Your task to perform on an android device: Add "lenovo thinkpad" to the cart on newegg, then select checkout. Image 0: 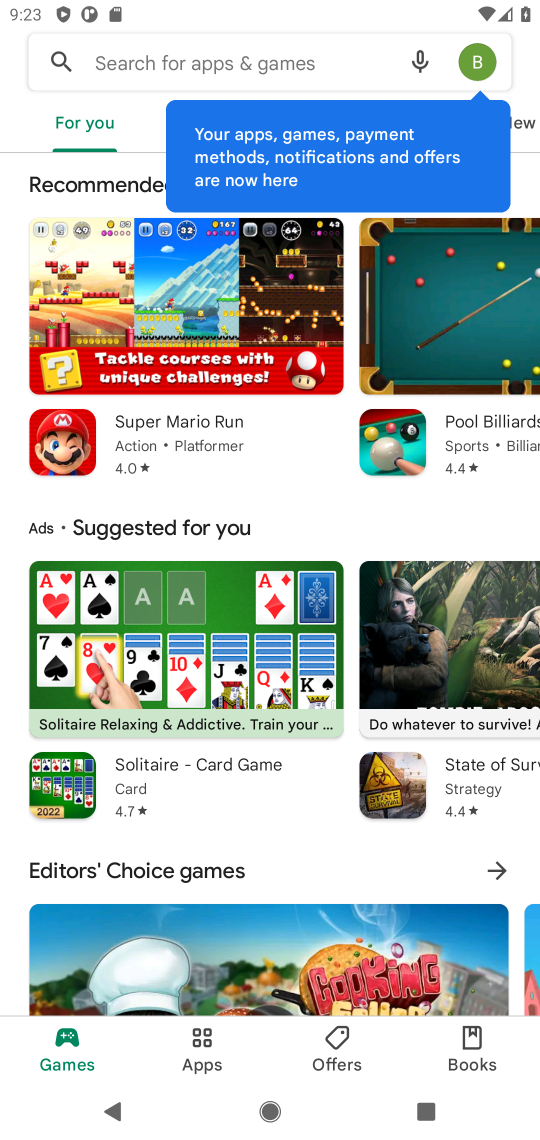
Step 0: press home button
Your task to perform on an android device: Add "lenovo thinkpad" to the cart on newegg, then select checkout. Image 1: 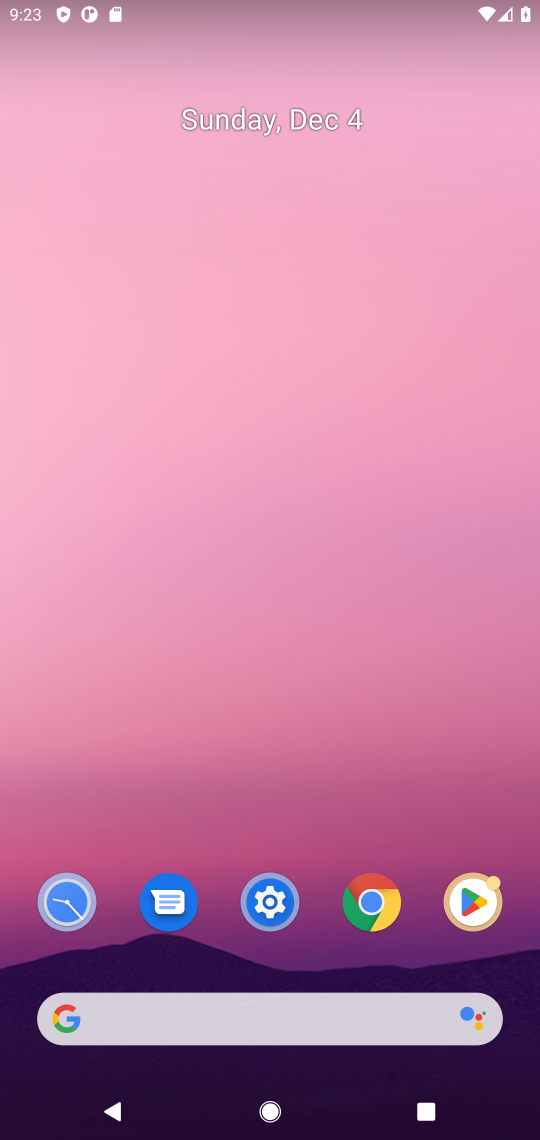
Step 1: click (386, 892)
Your task to perform on an android device: Add "lenovo thinkpad" to the cart on newegg, then select checkout. Image 2: 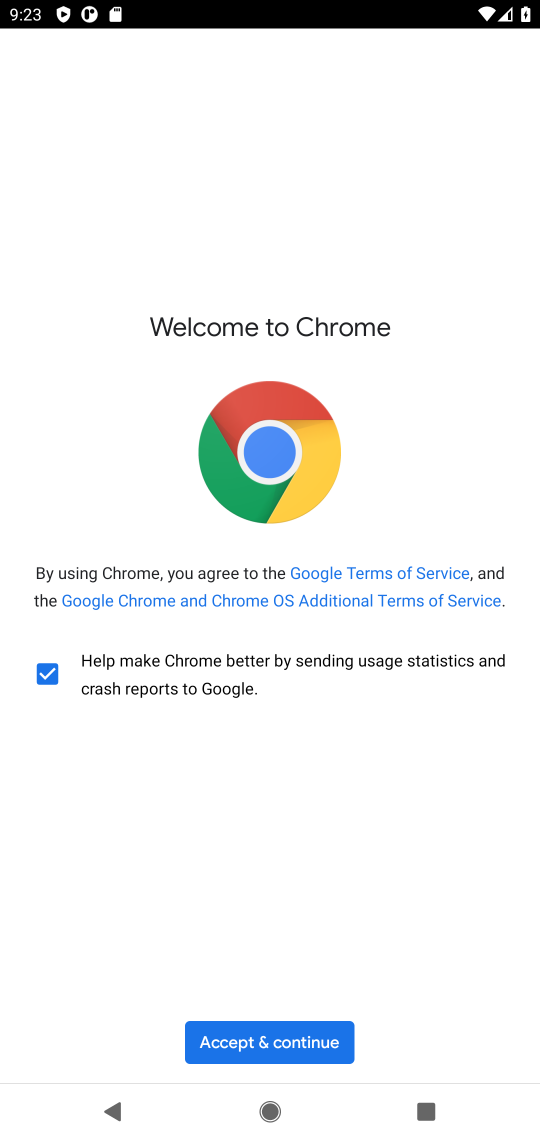
Step 2: click (328, 1029)
Your task to perform on an android device: Add "lenovo thinkpad" to the cart on newegg, then select checkout. Image 3: 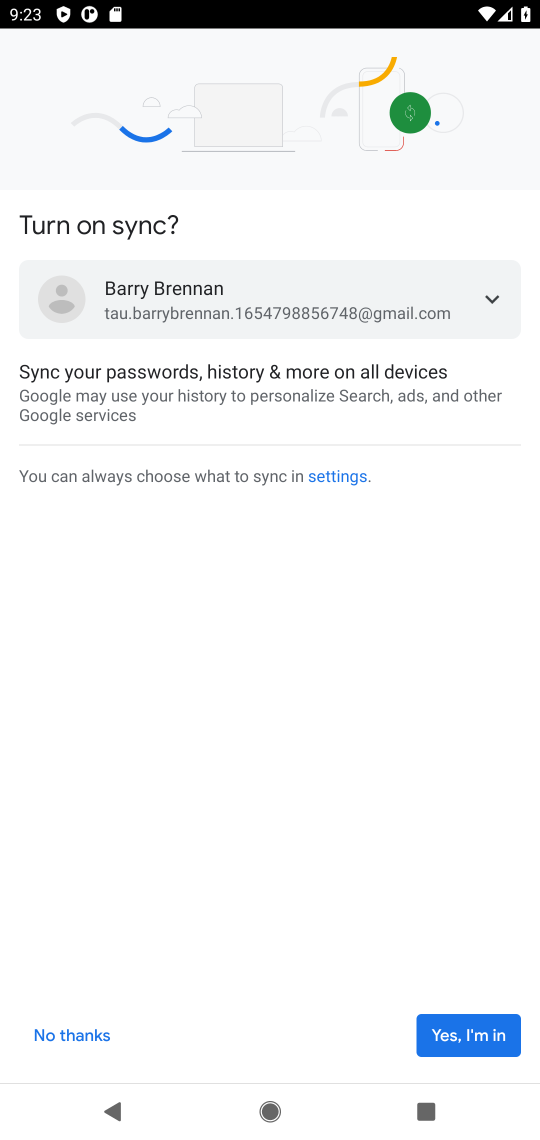
Step 3: click (328, 1029)
Your task to perform on an android device: Add "lenovo thinkpad" to the cart on newegg, then select checkout. Image 4: 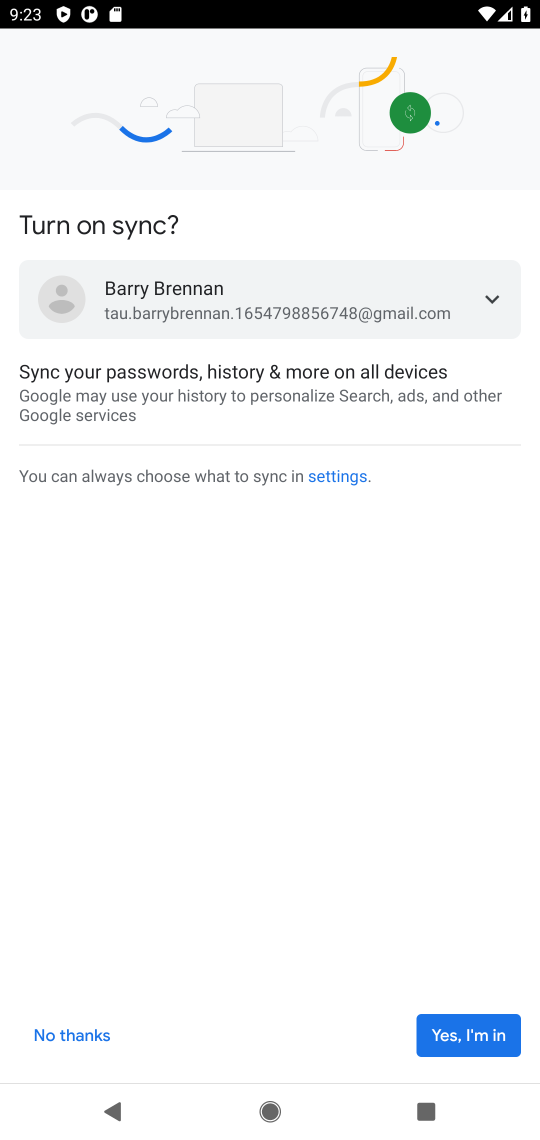
Step 4: click (486, 1035)
Your task to perform on an android device: Add "lenovo thinkpad" to the cart on newegg, then select checkout. Image 5: 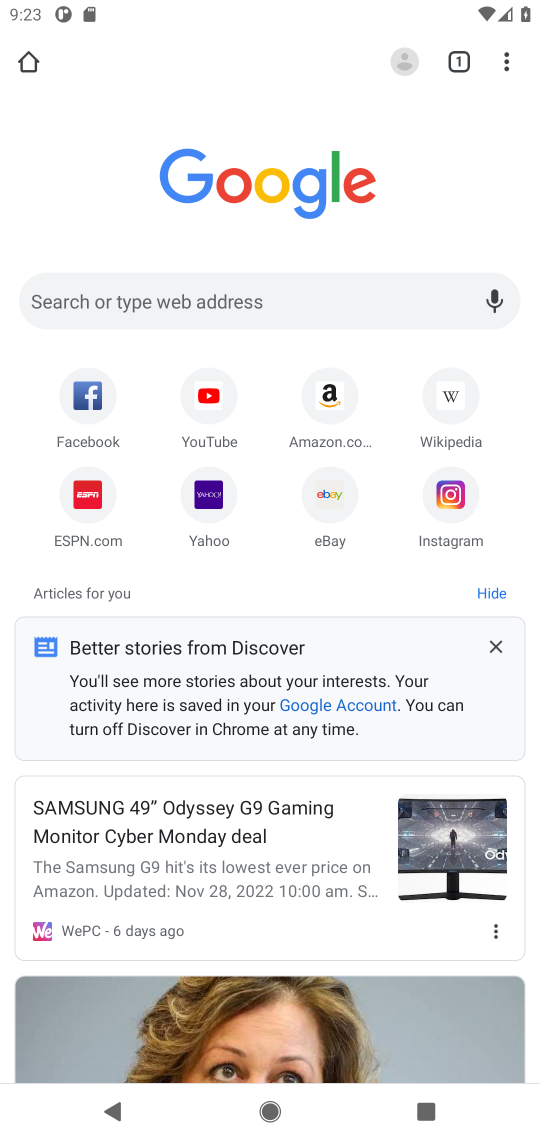
Step 5: click (187, 288)
Your task to perform on an android device: Add "lenovo thinkpad" to the cart on newegg, then select checkout. Image 6: 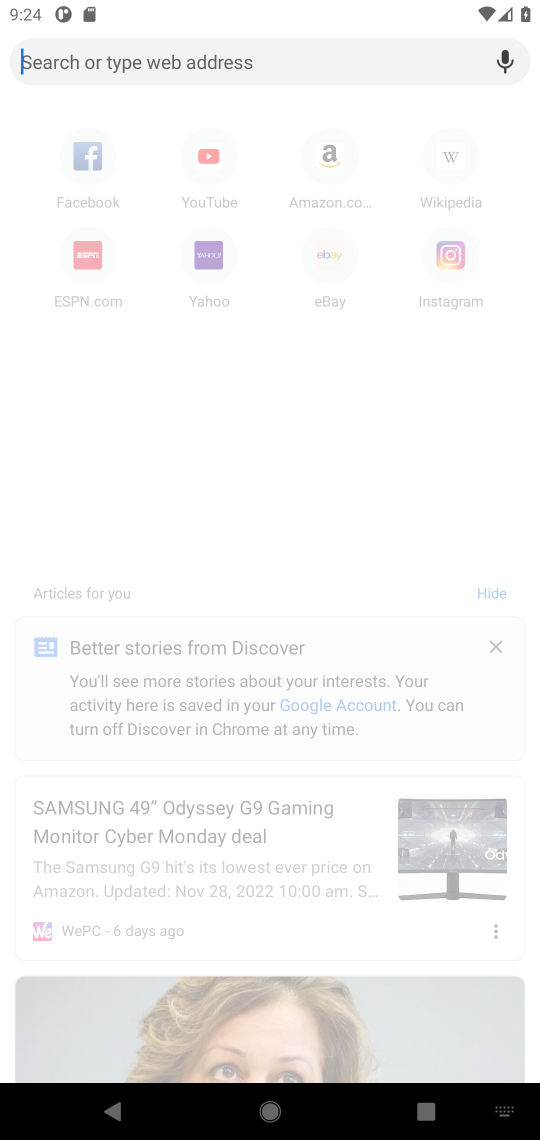
Step 6: type "new egg"
Your task to perform on an android device: Add "lenovo thinkpad" to the cart on newegg, then select checkout. Image 7: 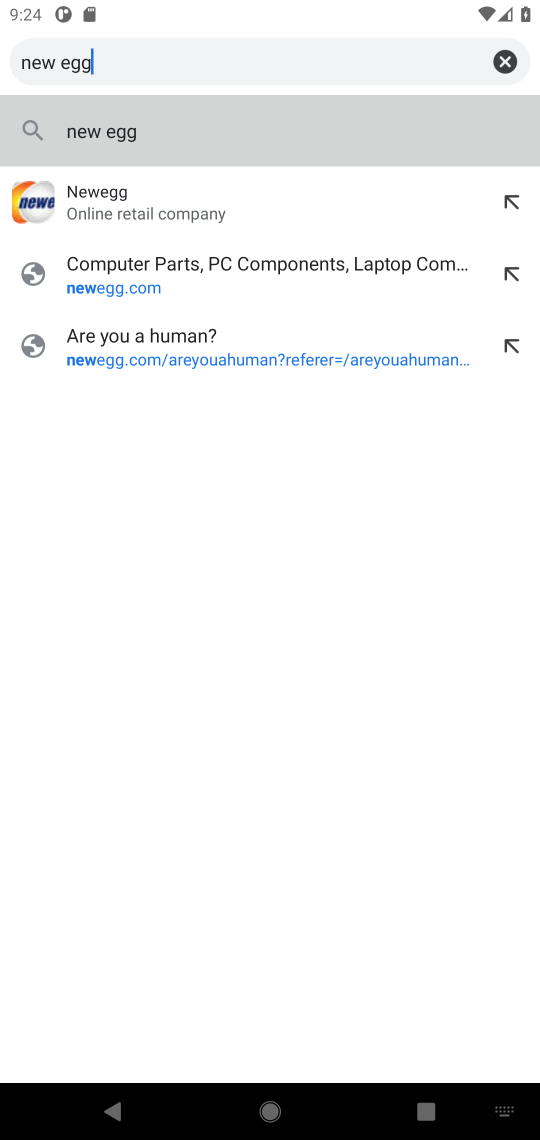
Step 7: click (177, 211)
Your task to perform on an android device: Add "lenovo thinkpad" to the cart on newegg, then select checkout. Image 8: 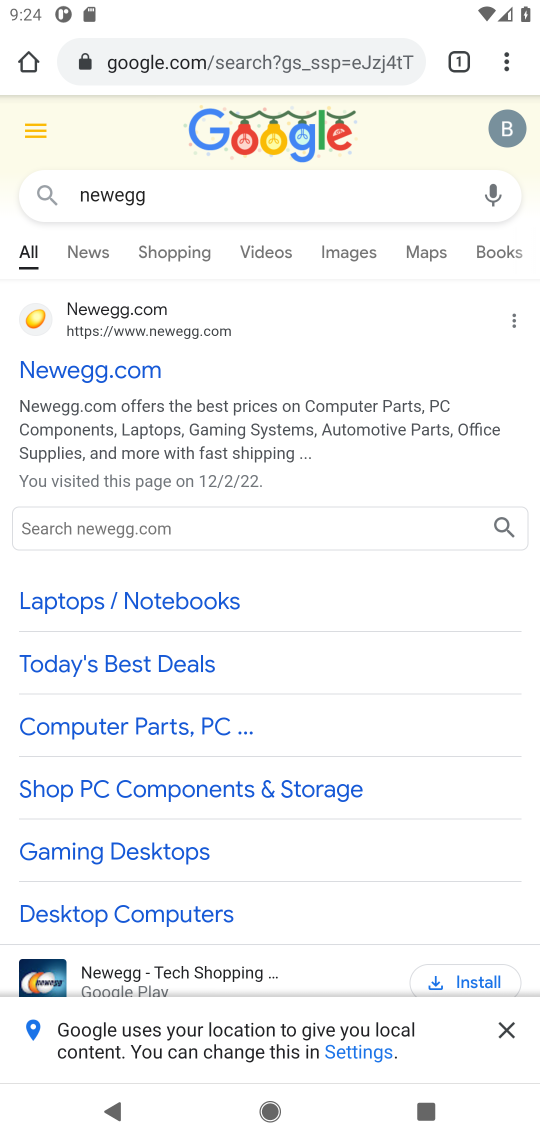
Step 8: click (139, 369)
Your task to perform on an android device: Add "lenovo thinkpad" to the cart on newegg, then select checkout. Image 9: 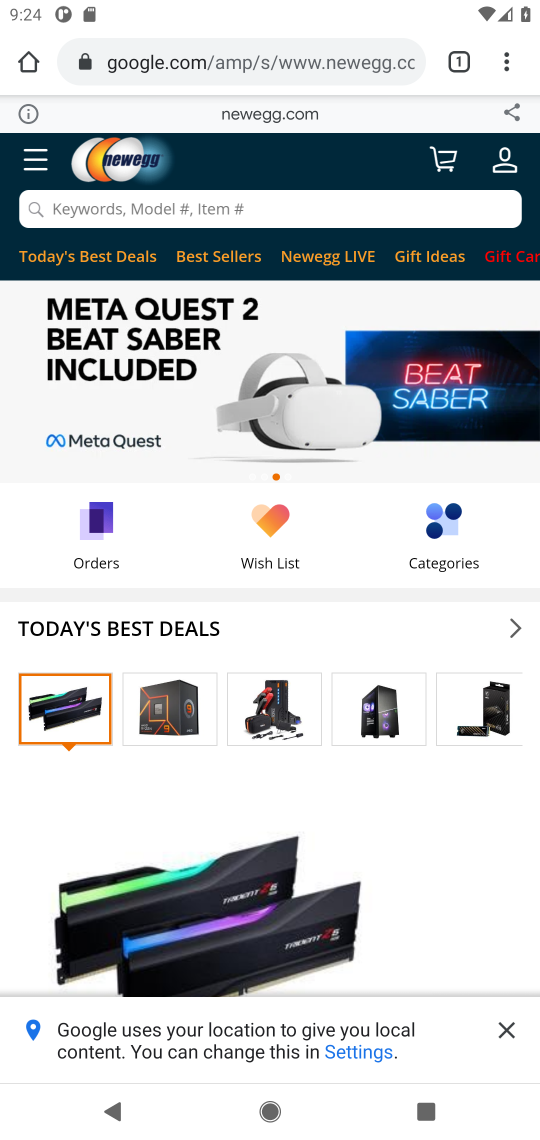
Step 9: click (322, 210)
Your task to perform on an android device: Add "lenovo thinkpad" to the cart on newegg, then select checkout. Image 10: 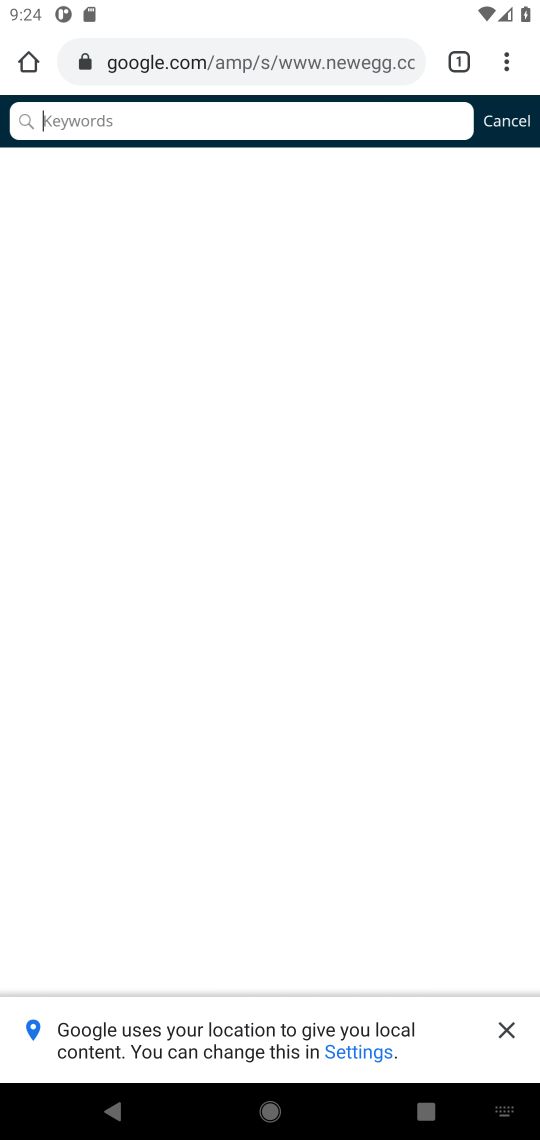
Step 10: type "lenovo thinkpad"
Your task to perform on an android device: Add "lenovo thinkpad" to the cart on newegg, then select checkout. Image 11: 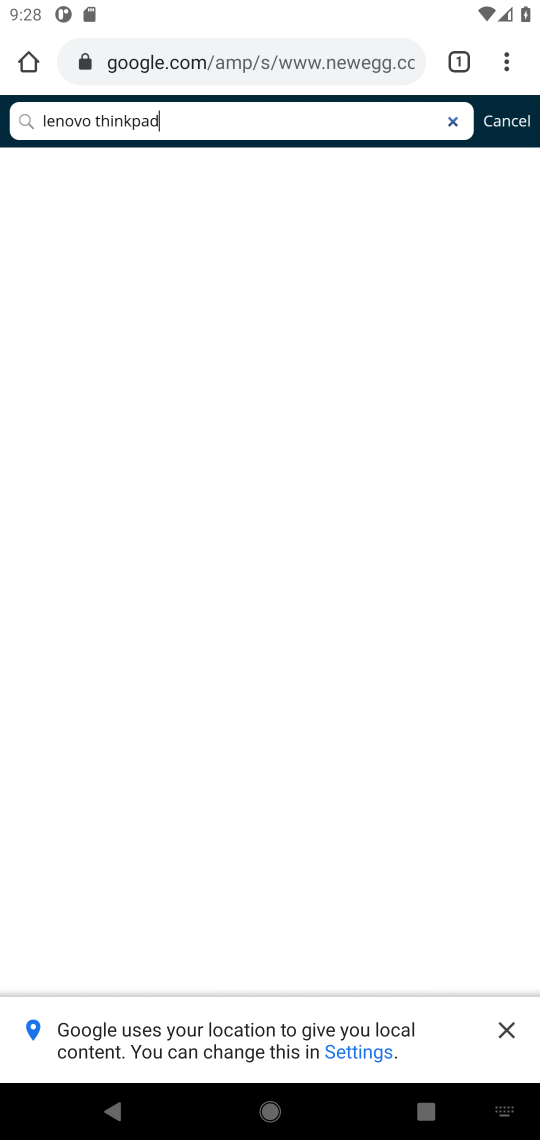
Step 11: task complete